Your task to perform on an android device: snooze an email in the gmail app Image 0: 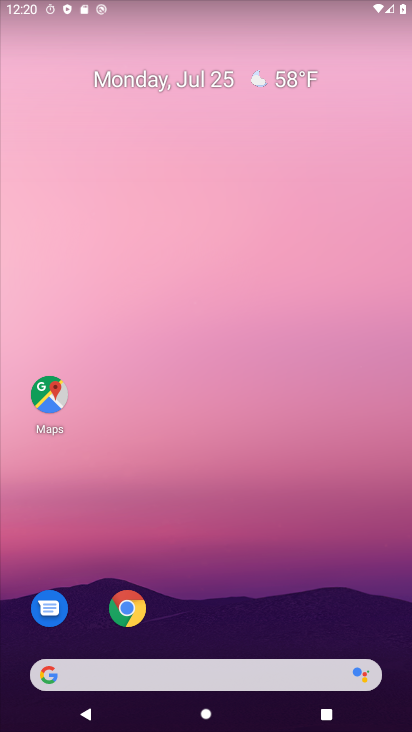
Step 0: drag from (361, 638) to (282, 126)
Your task to perform on an android device: snooze an email in the gmail app Image 1: 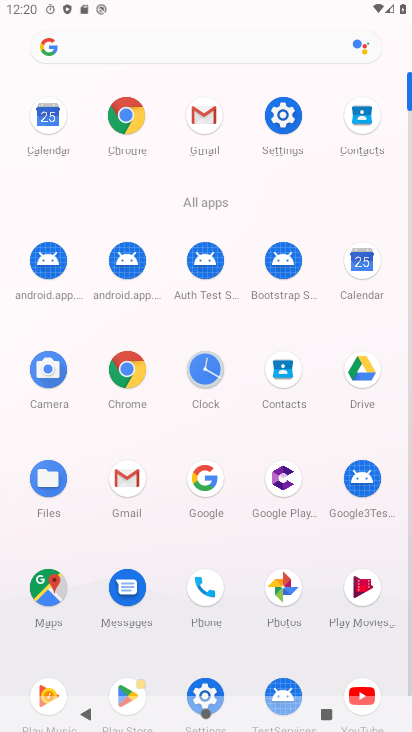
Step 1: click (207, 113)
Your task to perform on an android device: snooze an email in the gmail app Image 2: 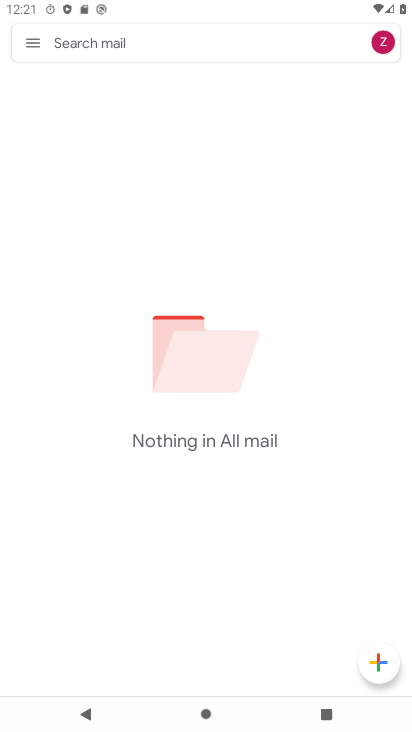
Step 2: click (38, 49)
Your task to perform on an android device: snooze an email in the gmail app Image 3: 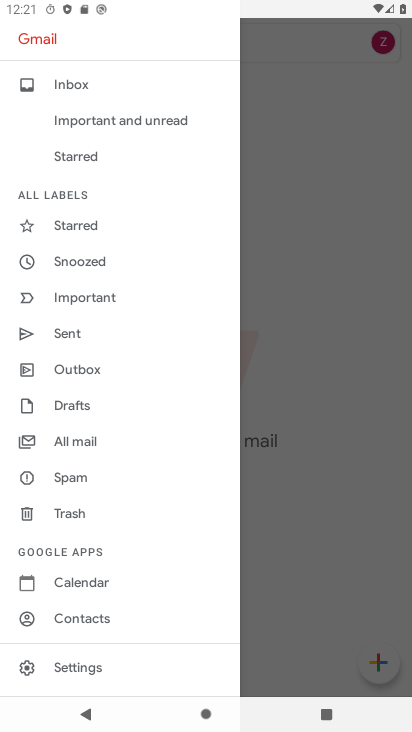
Step 3: click (79, 449)
Your task to perform on an android device: snooze an email in the gmail app Image 4: 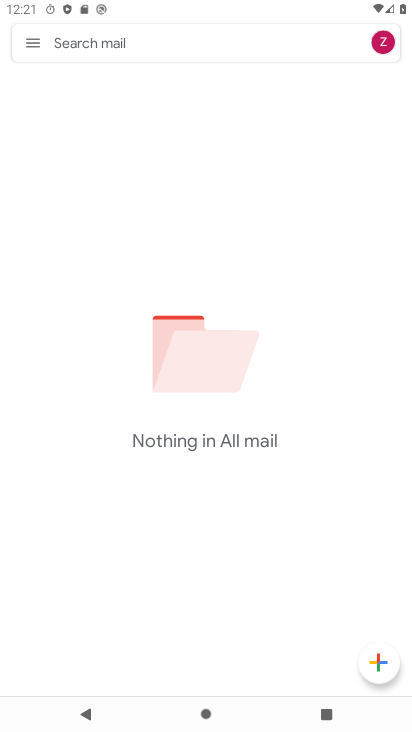
Step 4: task complete